Your task to perform on an android device: What is the news today? Image 0: 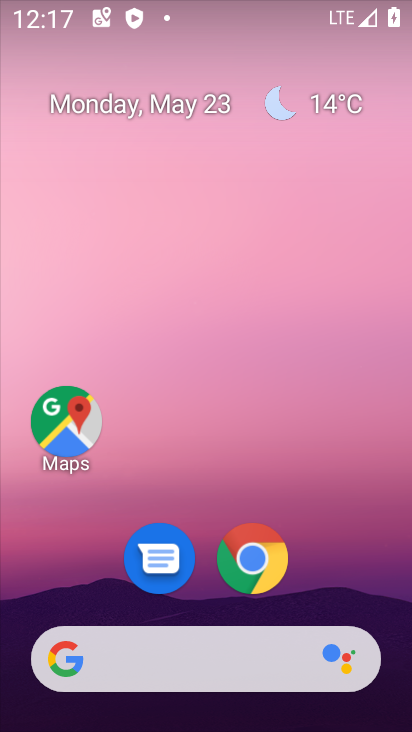
Step 0: click (114, 659)
Your task to perform on an android device: What is the news today? Image 1: 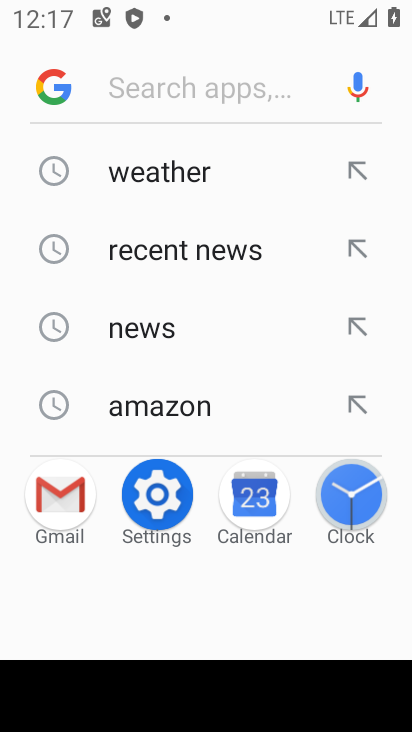
Step 1: click (137, 88)
Your task to perform on an android device: What is the news today? Image 2: 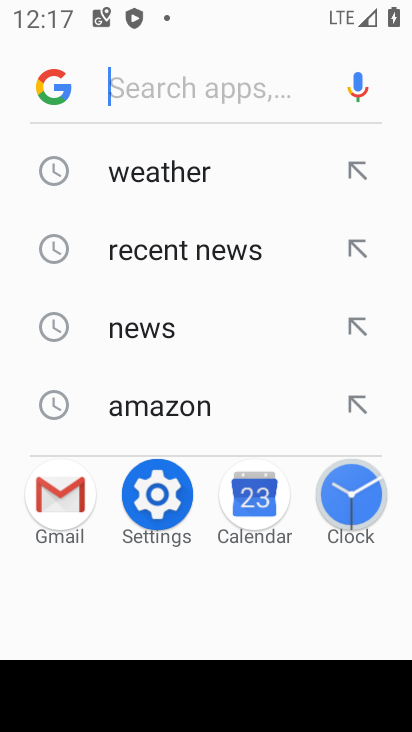
Step 2: type "today's news "
Your task to perform on an android device: What is the news today? Image 3: 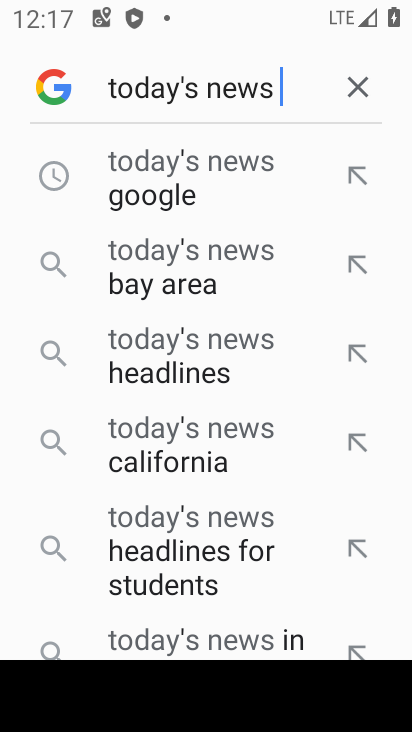
Step 3: click (222, 155)
Your task to perform on an android device: What is the news today? Image 4: 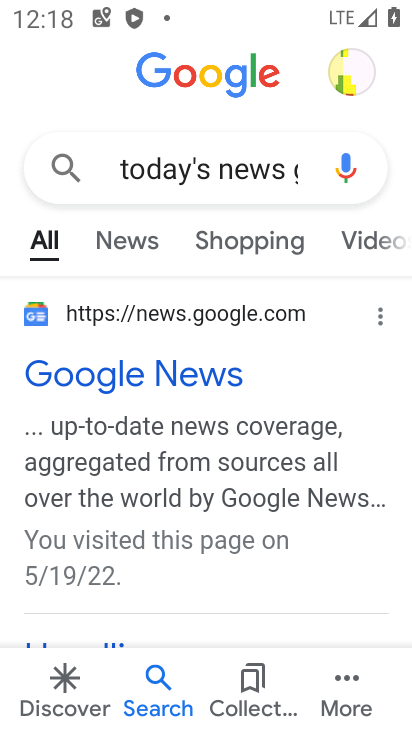
Step 4: click (124, 248)
Your task to perform on an android device: What is the news today? Image 5: 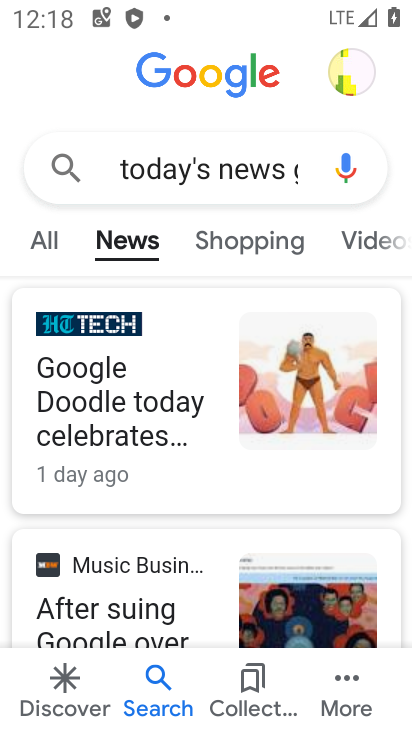
Step 5: drag from (154, 566) to (184, 186)
Your task to perform on an android device: What is the news today? Image 6: 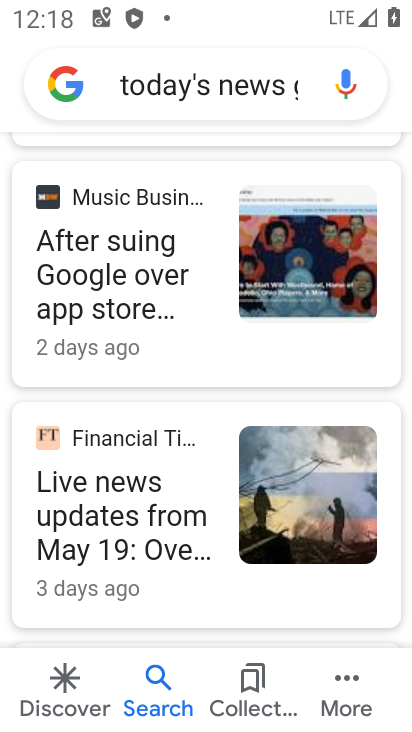
Step 6: drag from (169, 455) to (168, 141)
Your task to perform on an android device: What is the news today? Image 7: 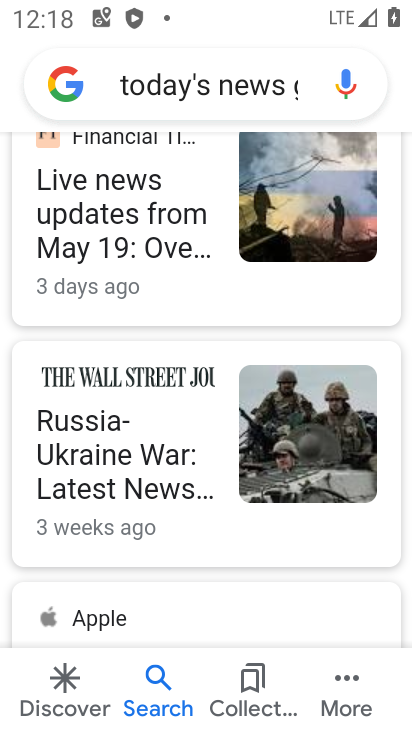
Step 7: drag from (133, 496) to (163, 90)
Your task to perform on an android device: What is the news today? Image 8: 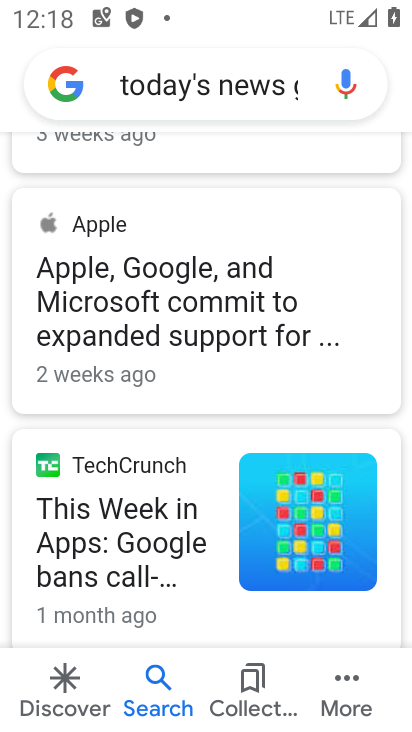
Step 8: drag from (125, 546) to (135, 102)
Your task to perform on an android device: What is the news today? Image 9: 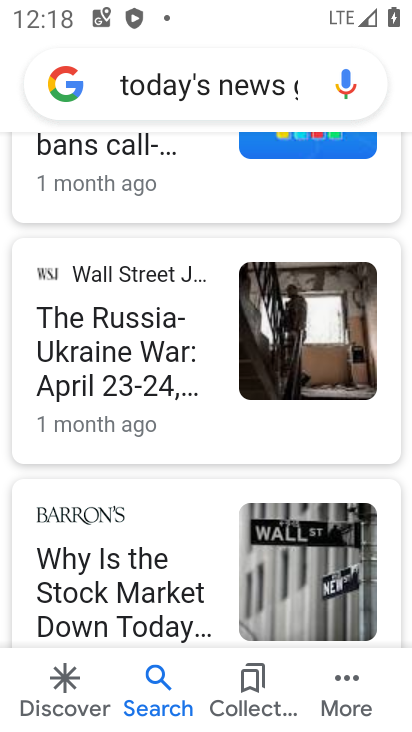
Step 9: drag from (122, 509) to (151, 135)
Your task to perform on an android device: What is the news today? Image 10: 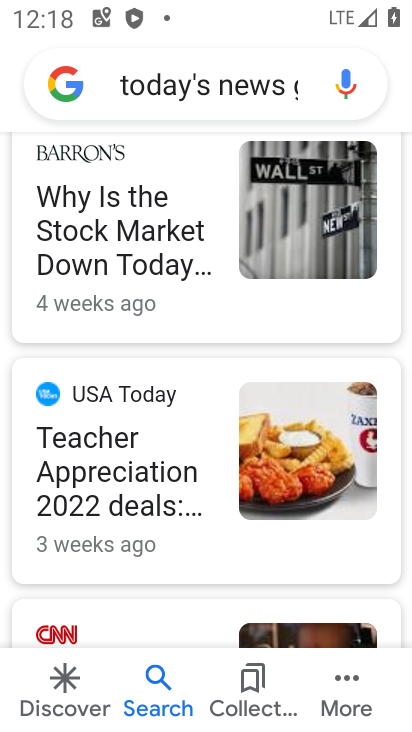
Step 10: drag from (141, 229) to (197, 29)
Your task to perform on an android device: What is the news today? Image 11: 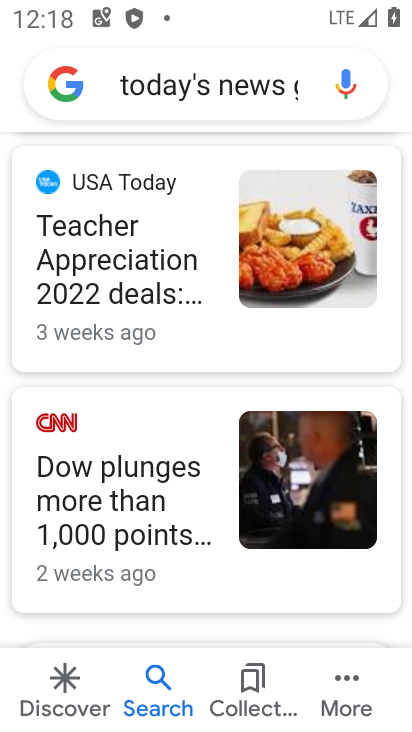
Step 11: drag from (152, 469) to (172, 67)
Your task to perform on an android device: What is the news today? Image 12: 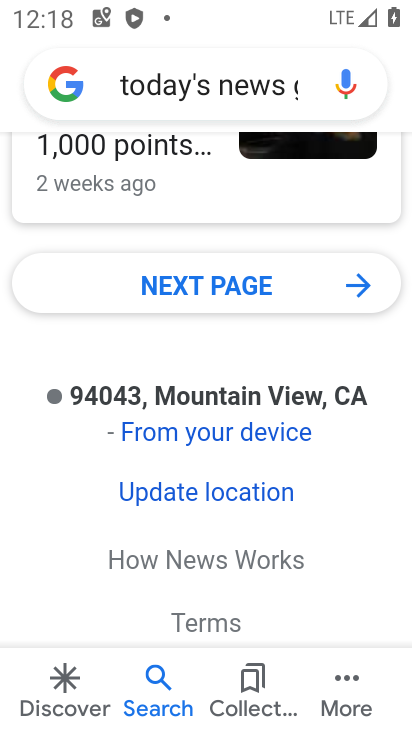
Step 12: drag from (124, 224) to (159, 724)
Your task to perform on an android device: What is the news today? Image 13: 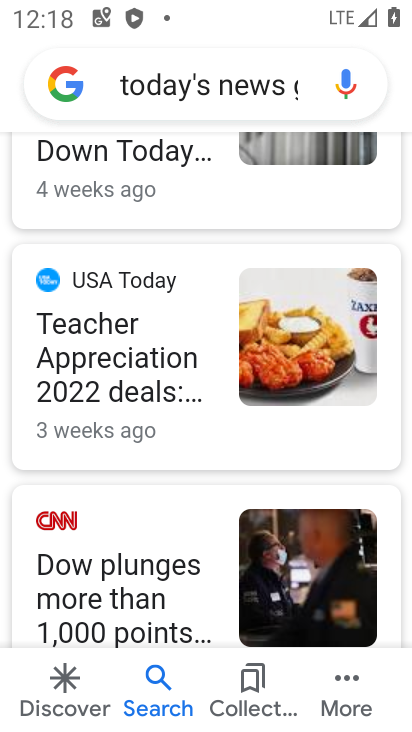
Step 13: drag from (76, 225) to (107, 723)
Your task to perform on an android device: What is the news today? Image 14: 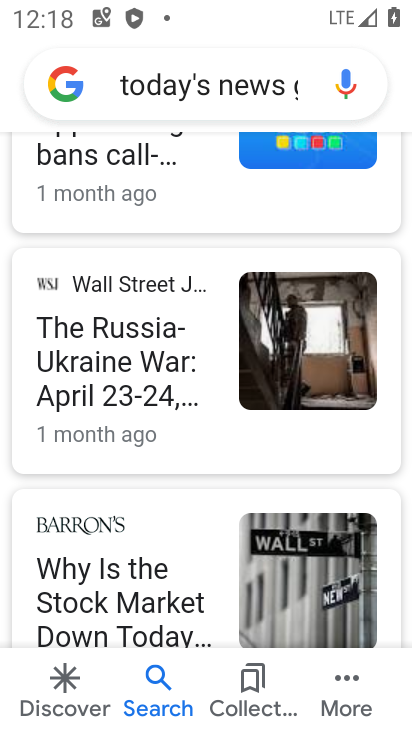
Step 14: drag from (75, 213) to (112, 726)
Your task to perform on an android device: What is the news today? Image 15: 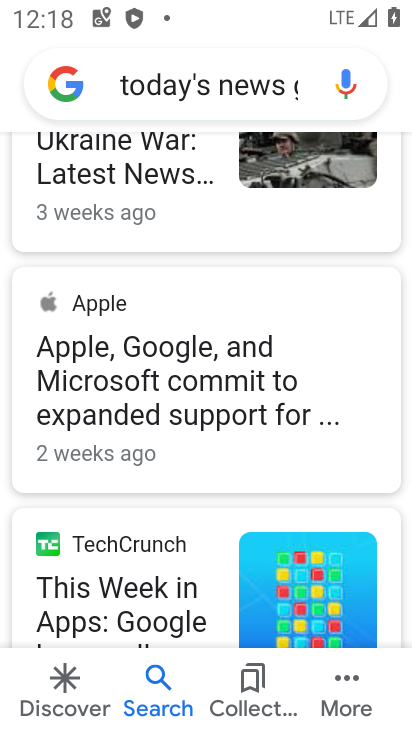
Step 15: drag from (118, 198) to (92, 698)
Your task to perform on an android device: What is the news today? Image 16: 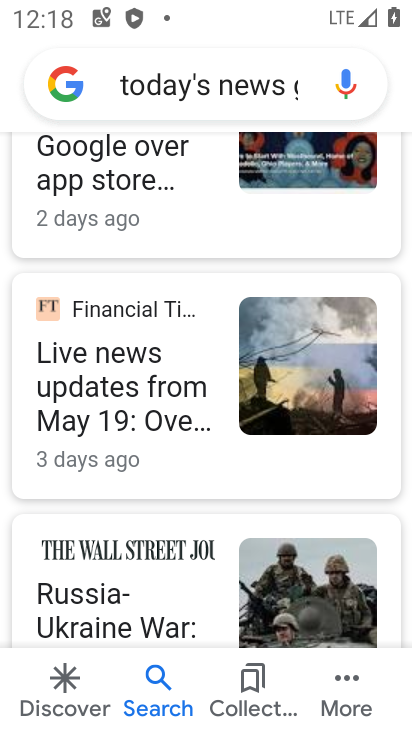
Step 16: drag from (96, 229) to (142, 708)
Your task to perform on an android device: What is the news today? Image 17: 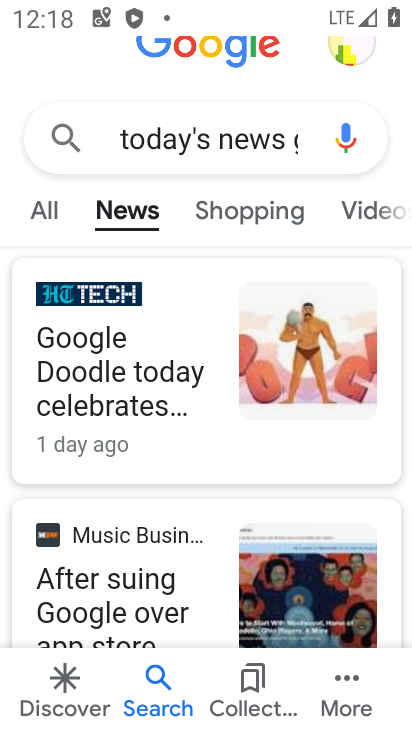
Step 17: click (37, 206)
Your task to perform on an android device: What is the news today? Image 18: 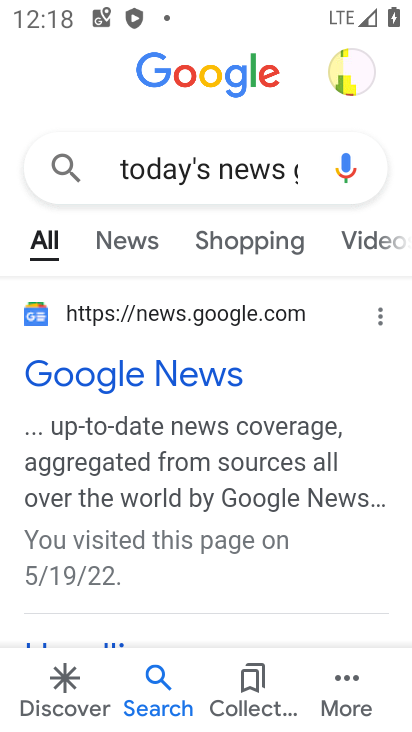
Step 18: drag from (184, 506) to (192, 205)
Your task to perform on an android device: What is the news today? Image 19: 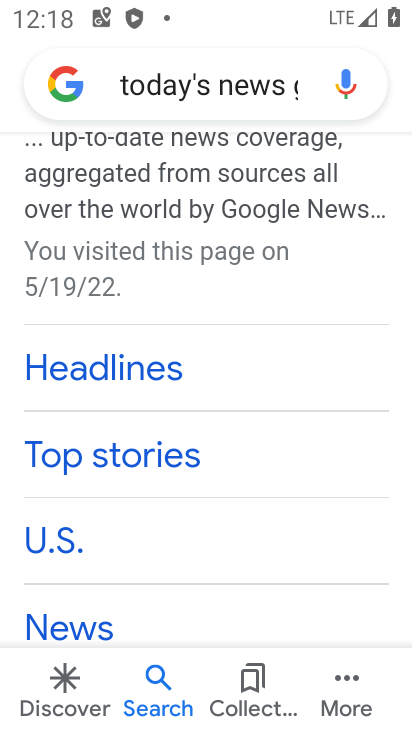
Step 19: drag from (217, 439) to (251, 122)
Your task to perform on an android device: What is the news today? Image 20: 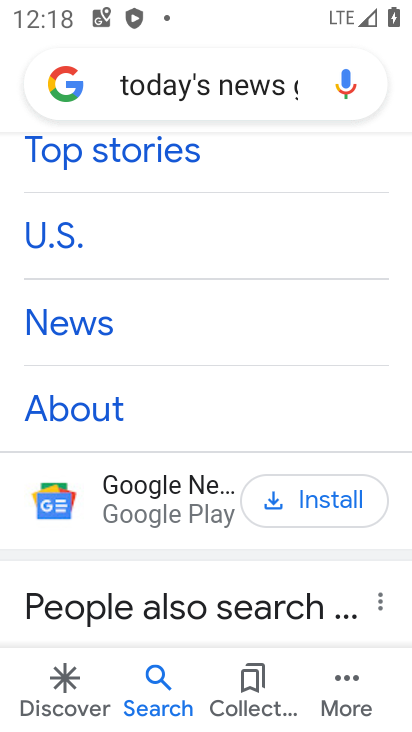
Step 20: drag from (233, 505) to (270, 101)
Your task to perform on an android device: What is the news today? Image 21: 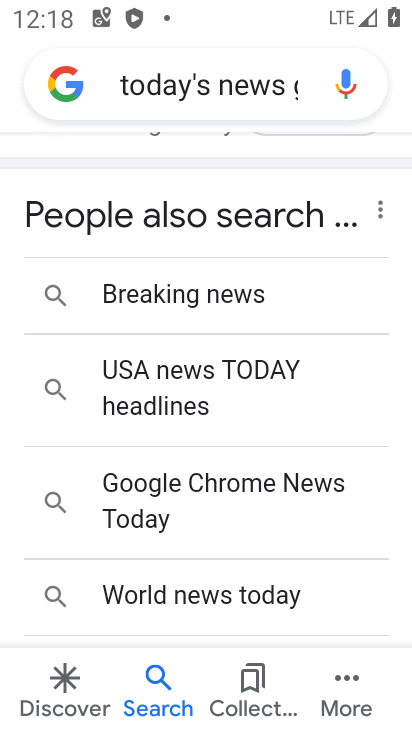
Step 21: click (197, 382)
Your task to perform on an android device: What is the news today? Image 22: 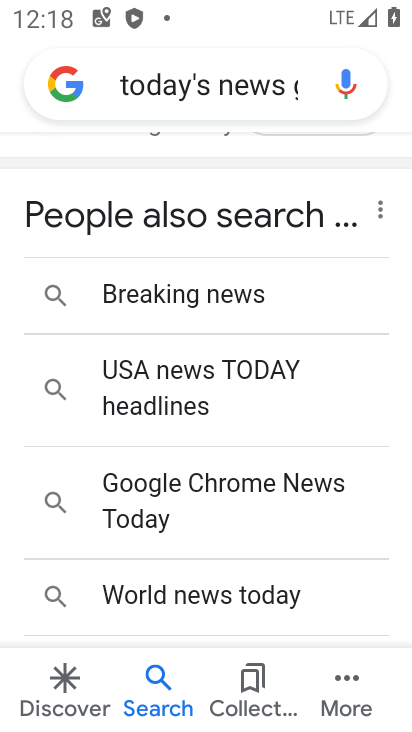
Step 22: click (205, 371)
Your task to perform on an android device: What is the news today? Image 23: 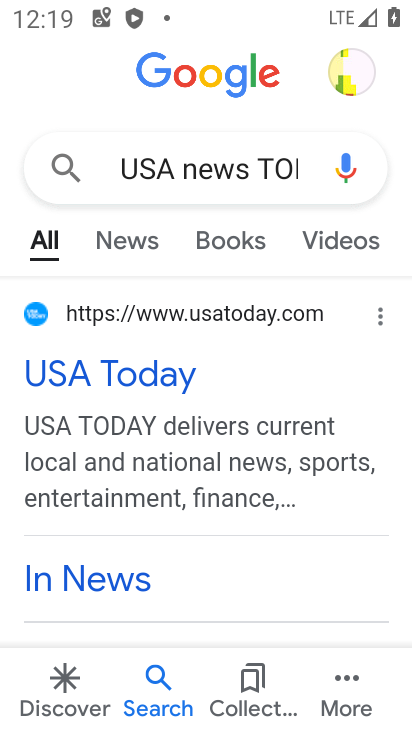
Step 23: drag from (189, 496) to (255, 222)
Your task to perform on an android device: What is the news today? Image 24: 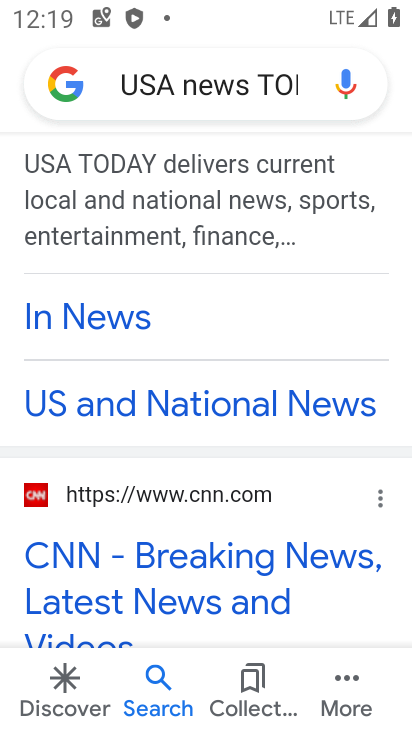
Step 24: drag from (191, 531) to (244, 162)
Your task to perform on an android device: What is the news today? Image 25: 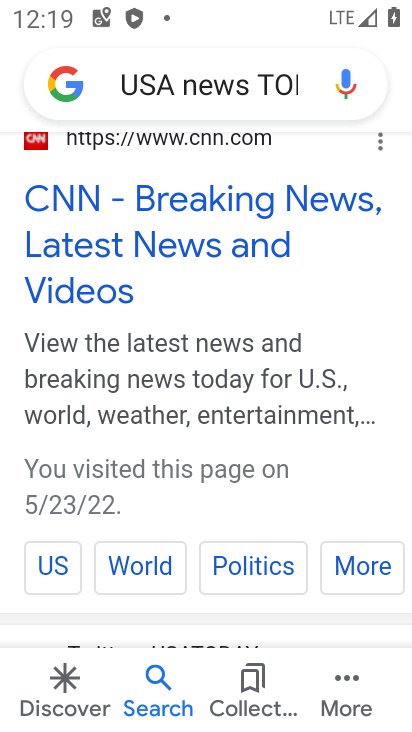
Step 25: click (160, 231)
Your task to perform on an android device: What is the news today? Image 26: 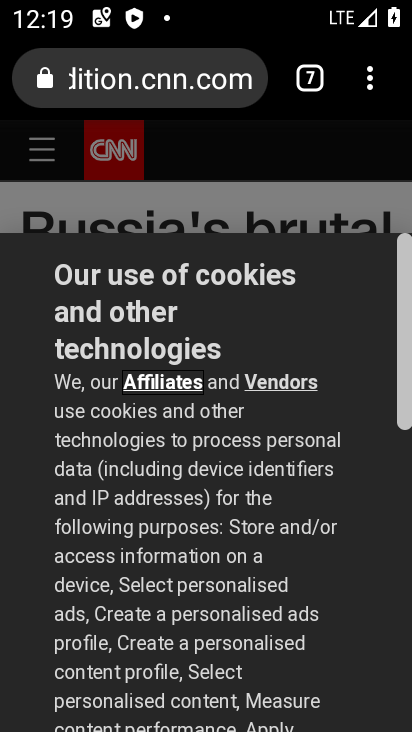
Step 26: task complete